Your task to perform on an android device: Search for Mexican restaurants on Maps Image 0: 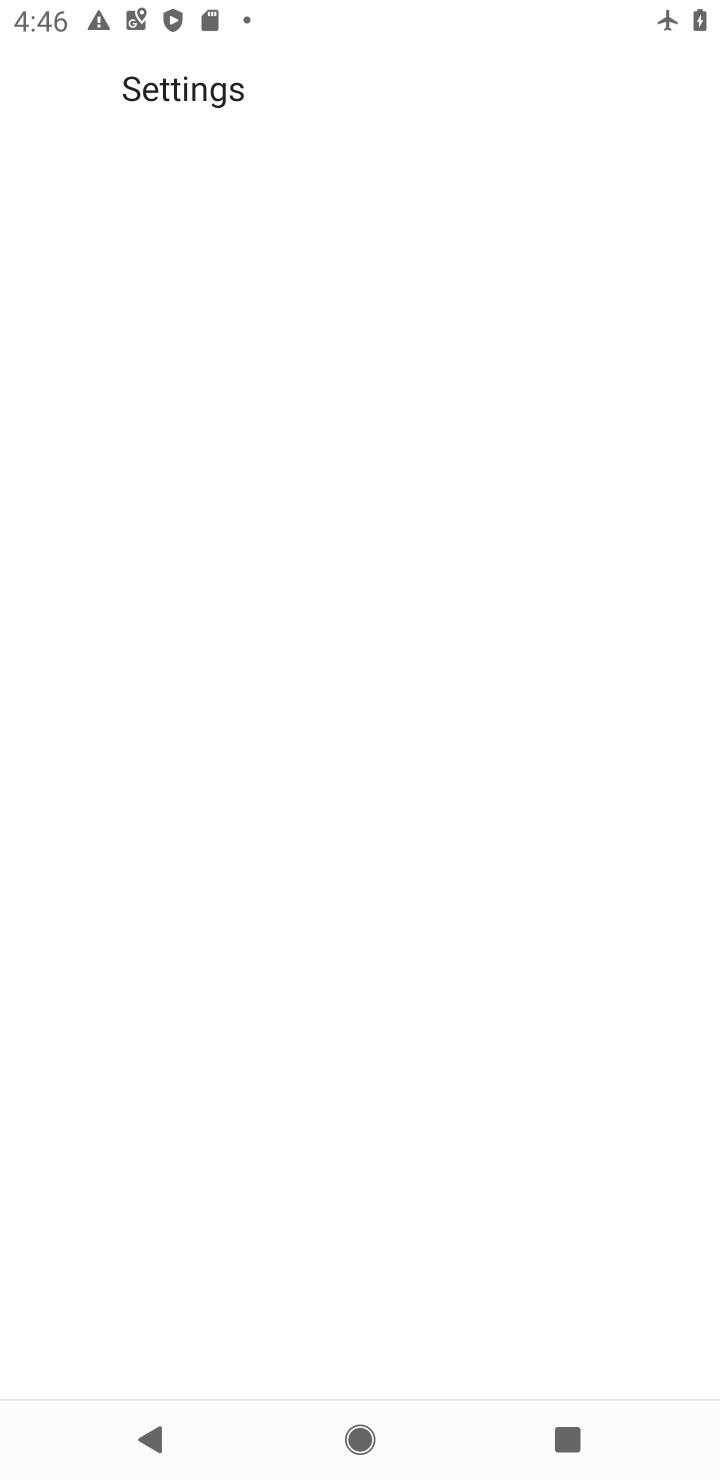
Step 0: press home button
Your task to perform on an android device: Search for Mexican restaurants on Maps Image 1: 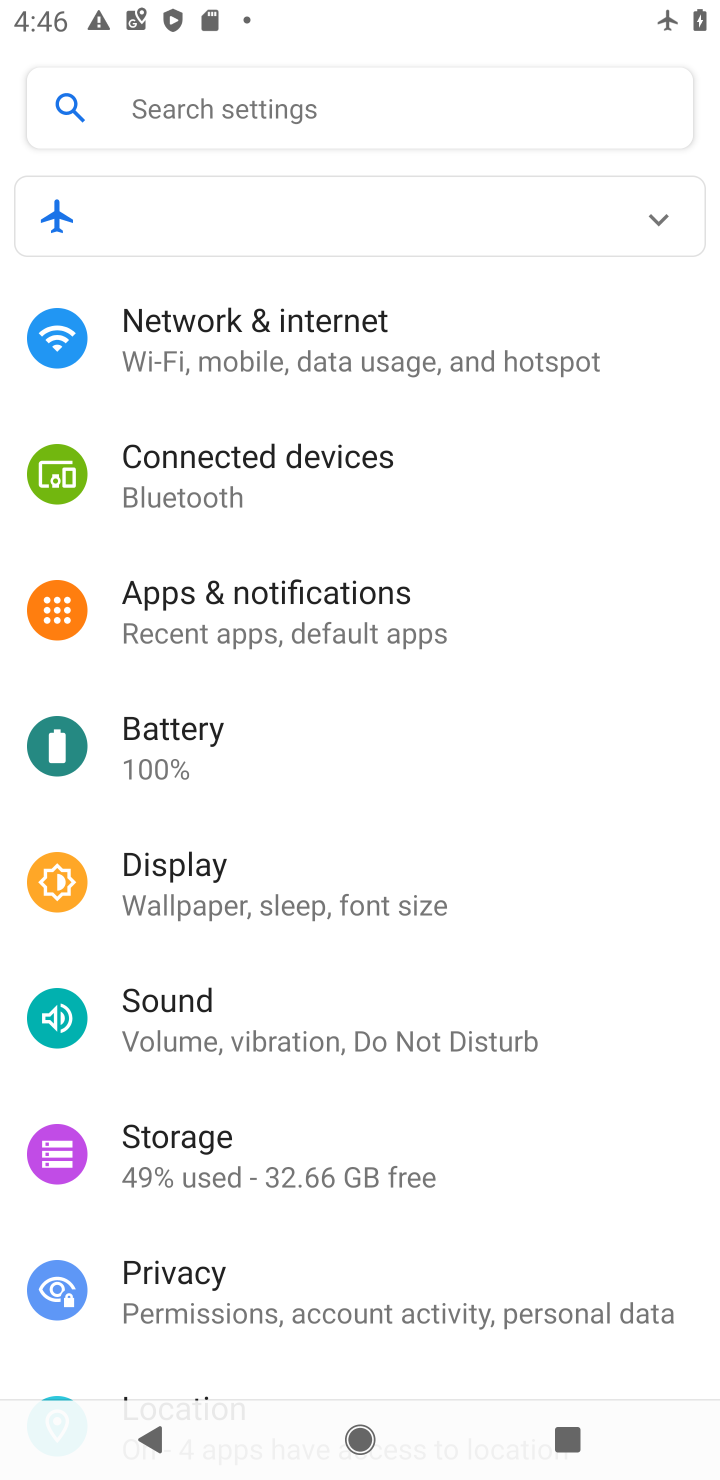
Step 1: press home button
Your task to perform on an android device: Search for Mexican restaurants on Maps Image 2: 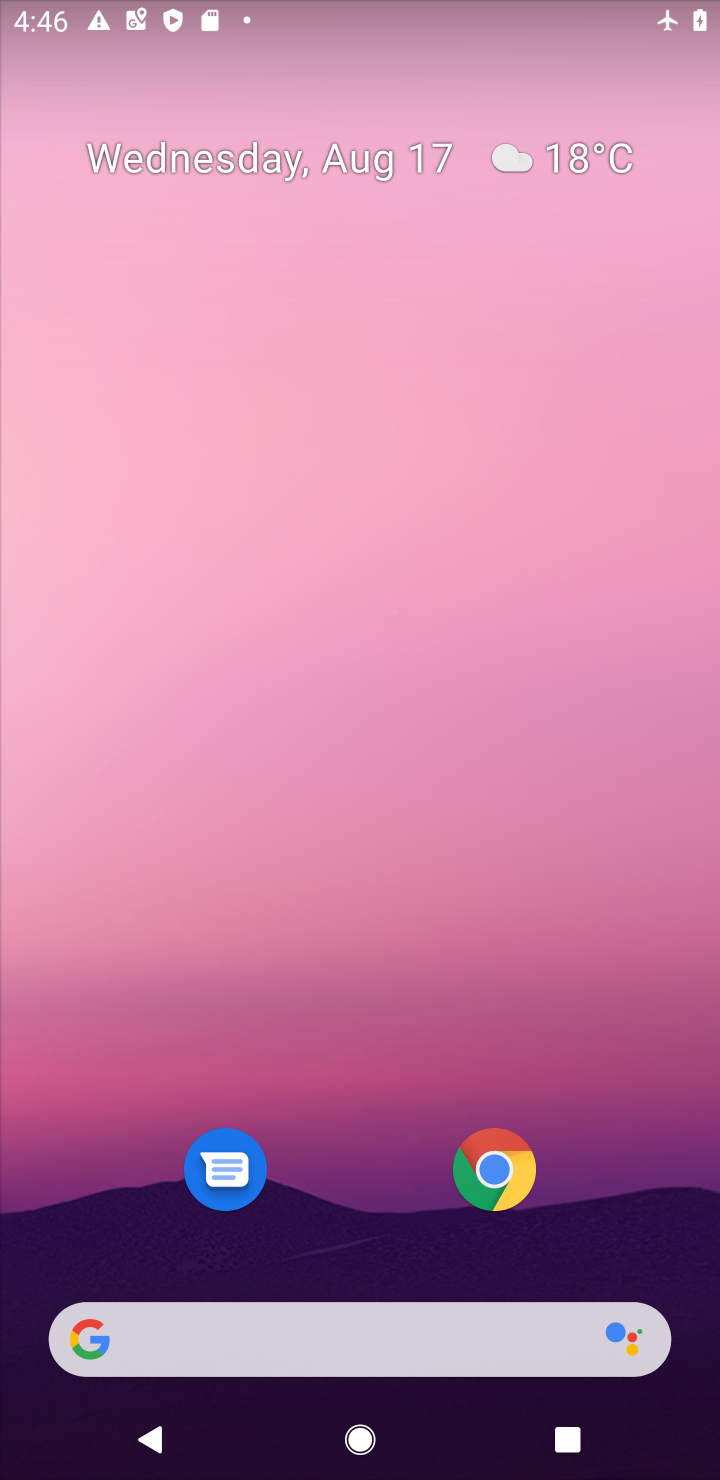
Step 2: press home button
Your task to perform on an android device: Search for Mexican restaurants on Maps Image 3: 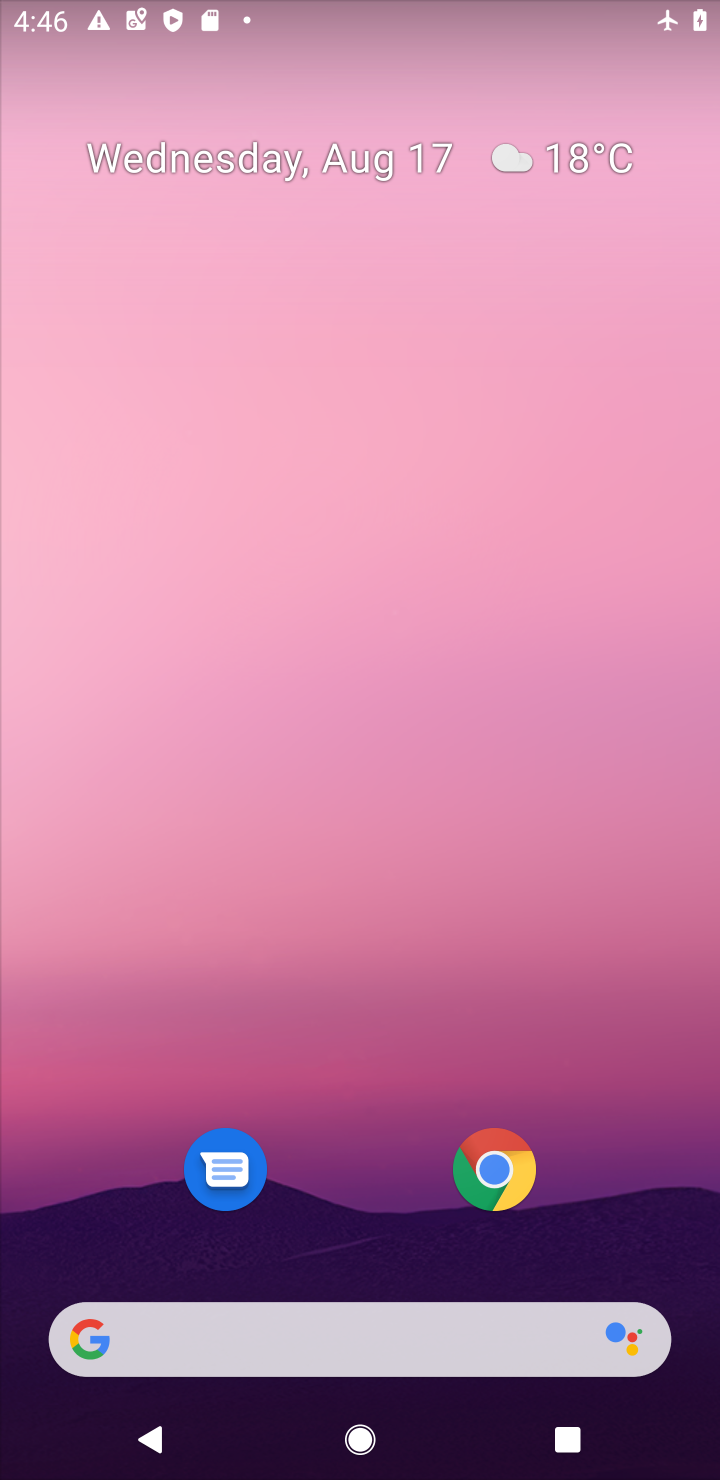
Step 3: drag from (289, 871) to (693, 289)
Your task to perform on an android device: Search for Mexican restaurants on Maps Image 4: 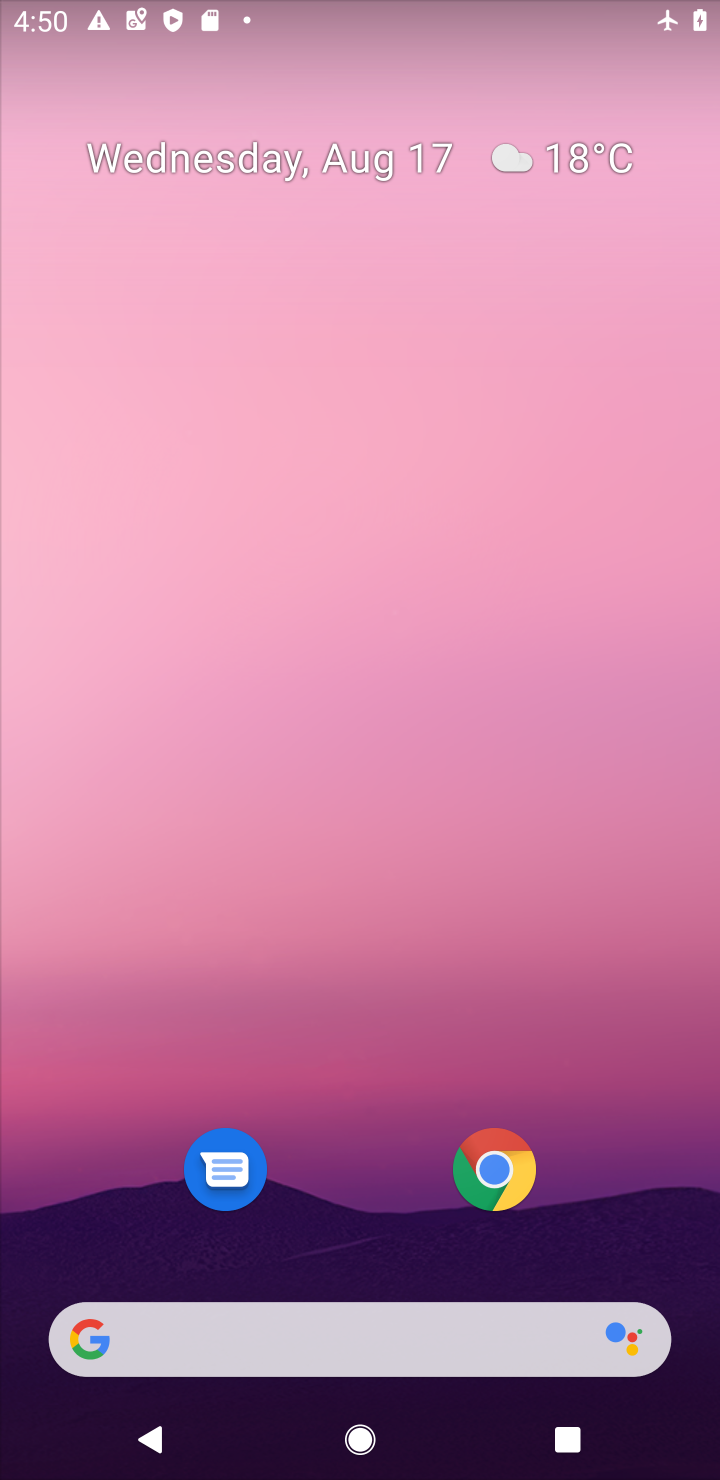
Step 4: drag from (359, 1279) to (289, 216)
Your task to perform on an android device: Search for Mexican restaurants on Maps Image 5: 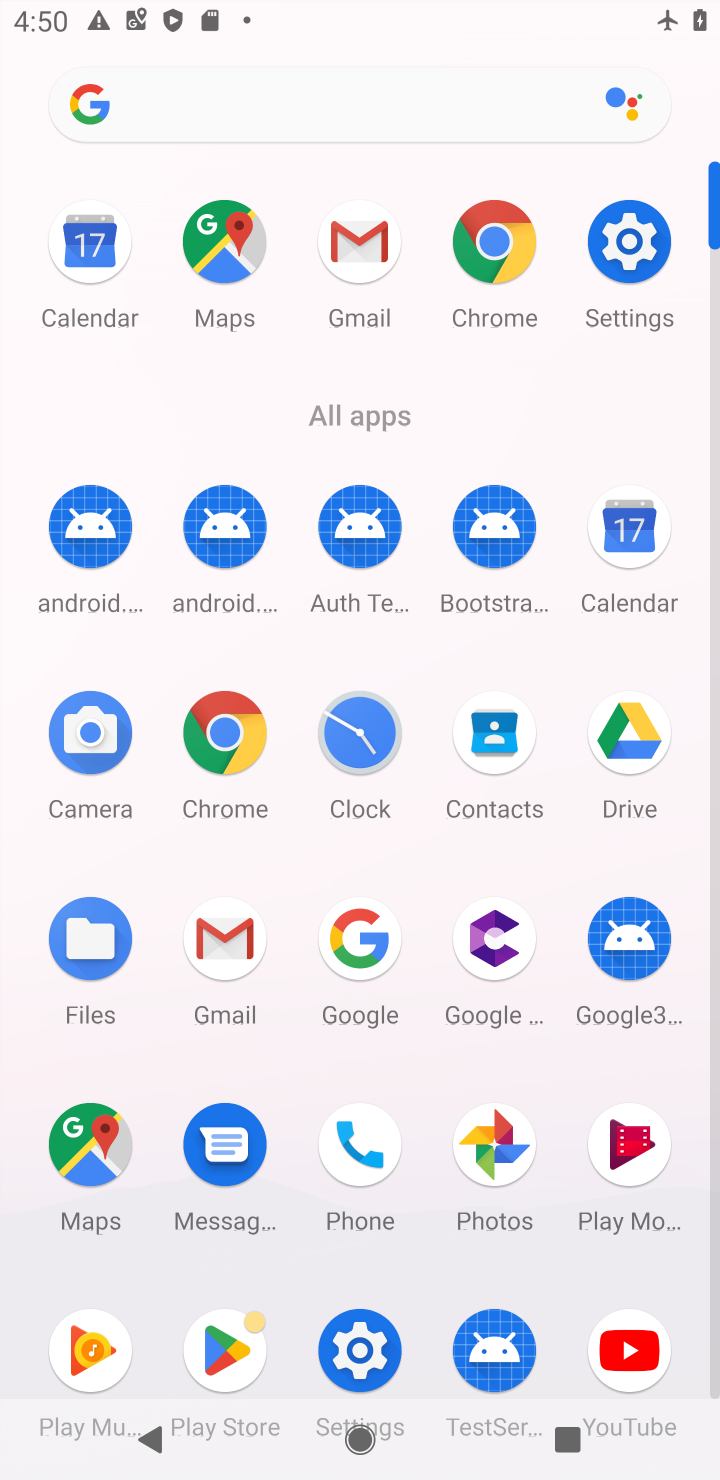
Step 5: click (221, 248)
Your task to perform on an android device: Search for Mexican restaurants on Maps Image 6: 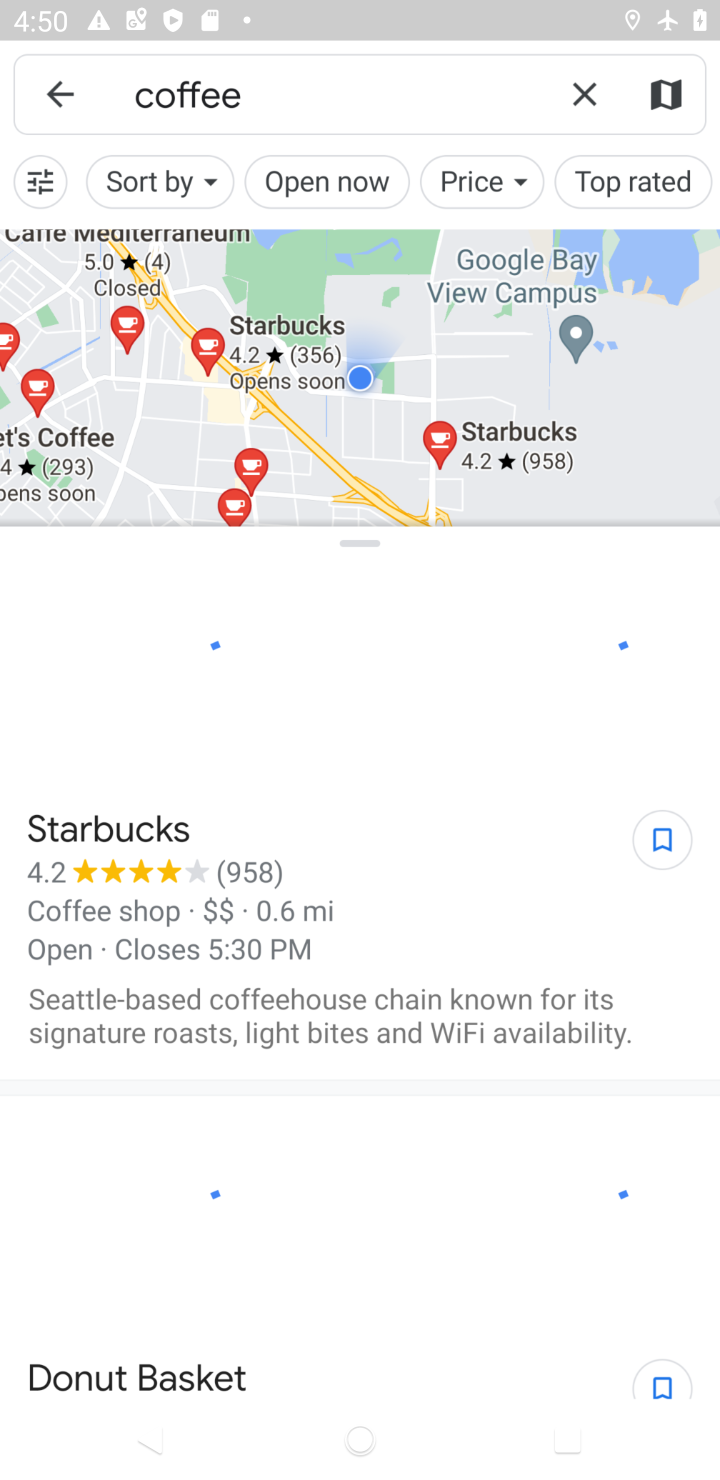
Step 6: click (591, 110)
Your task to perform on an android device: Search for Mexican restaurants on Maps Image 7: 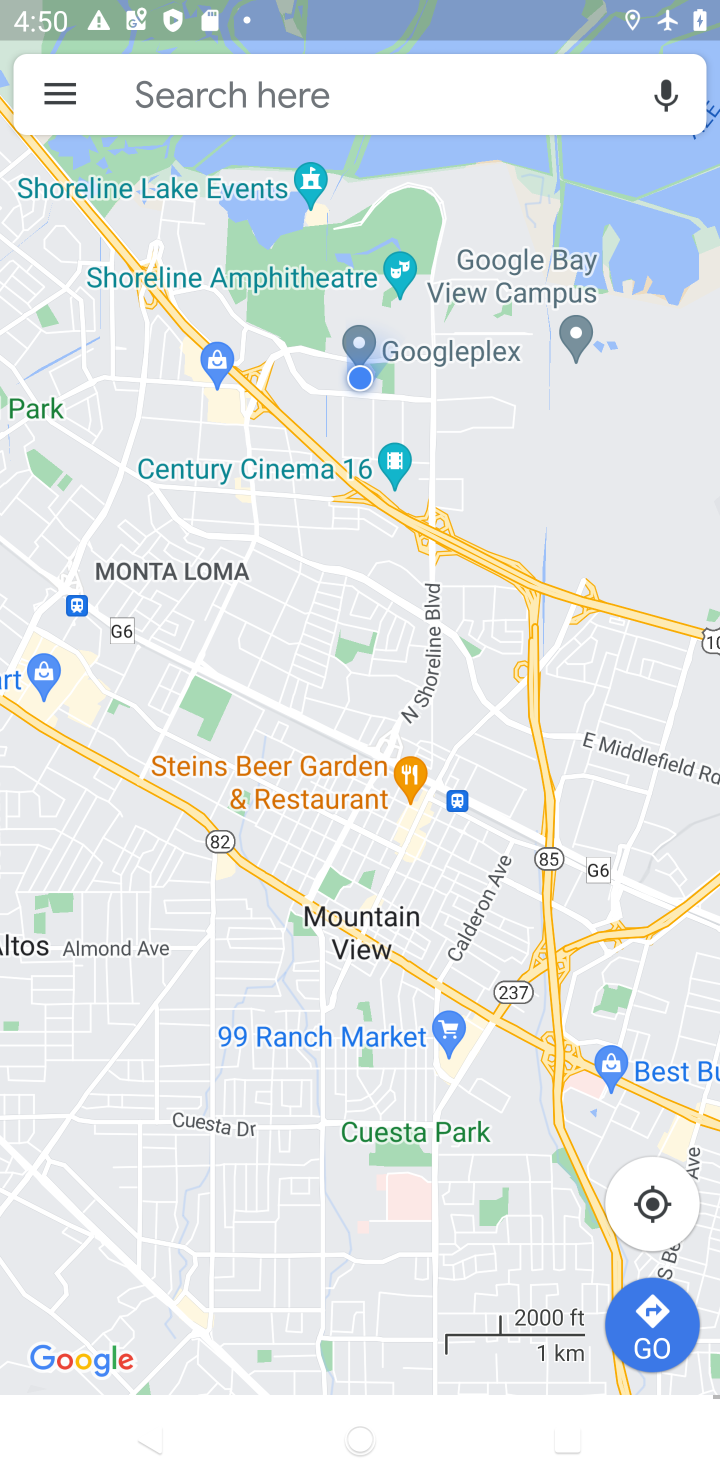
Step 7: click (586, 94)
Your task to perform on an android device: Search for Mexican restaurants on Maps Image 8: 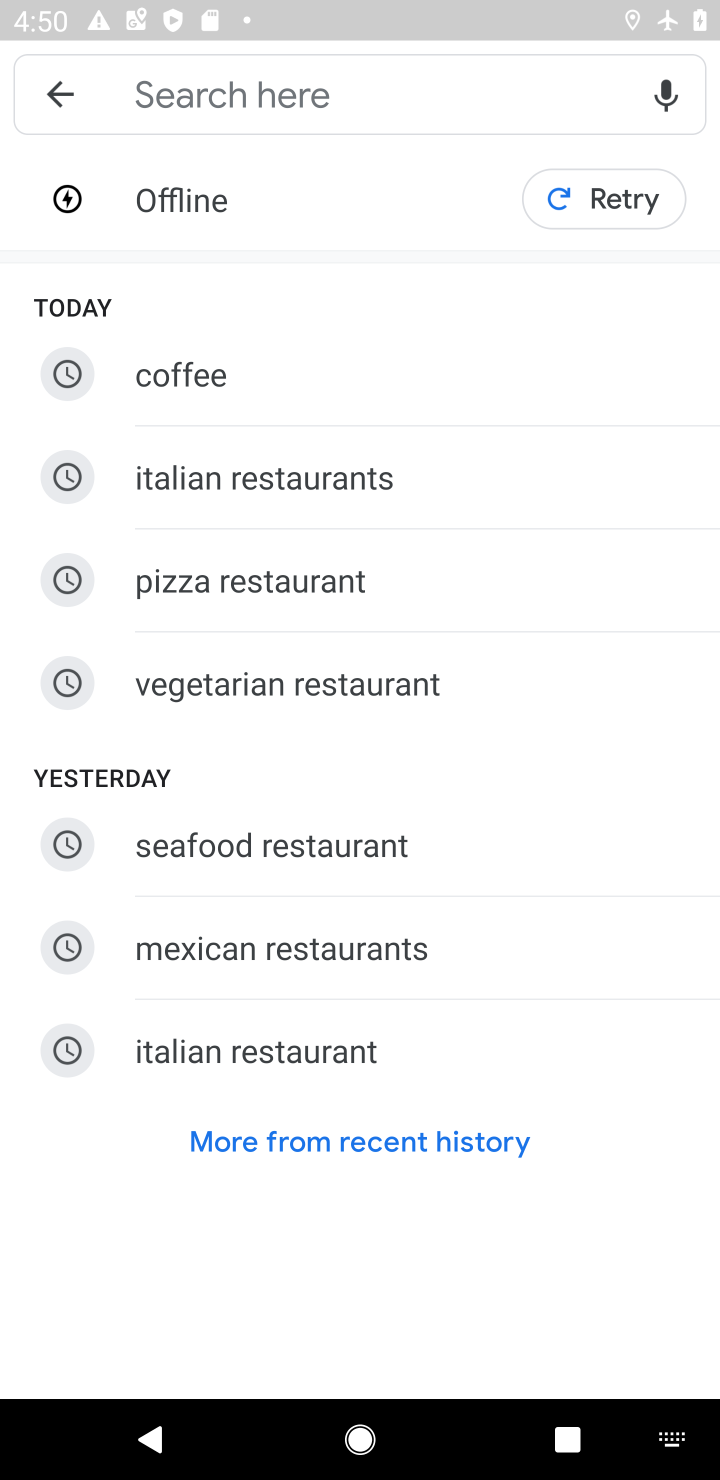
Step 8: click (344, 959)
Your task to perform on an android device: Search for Mexican restaurants on Maps Image 9: 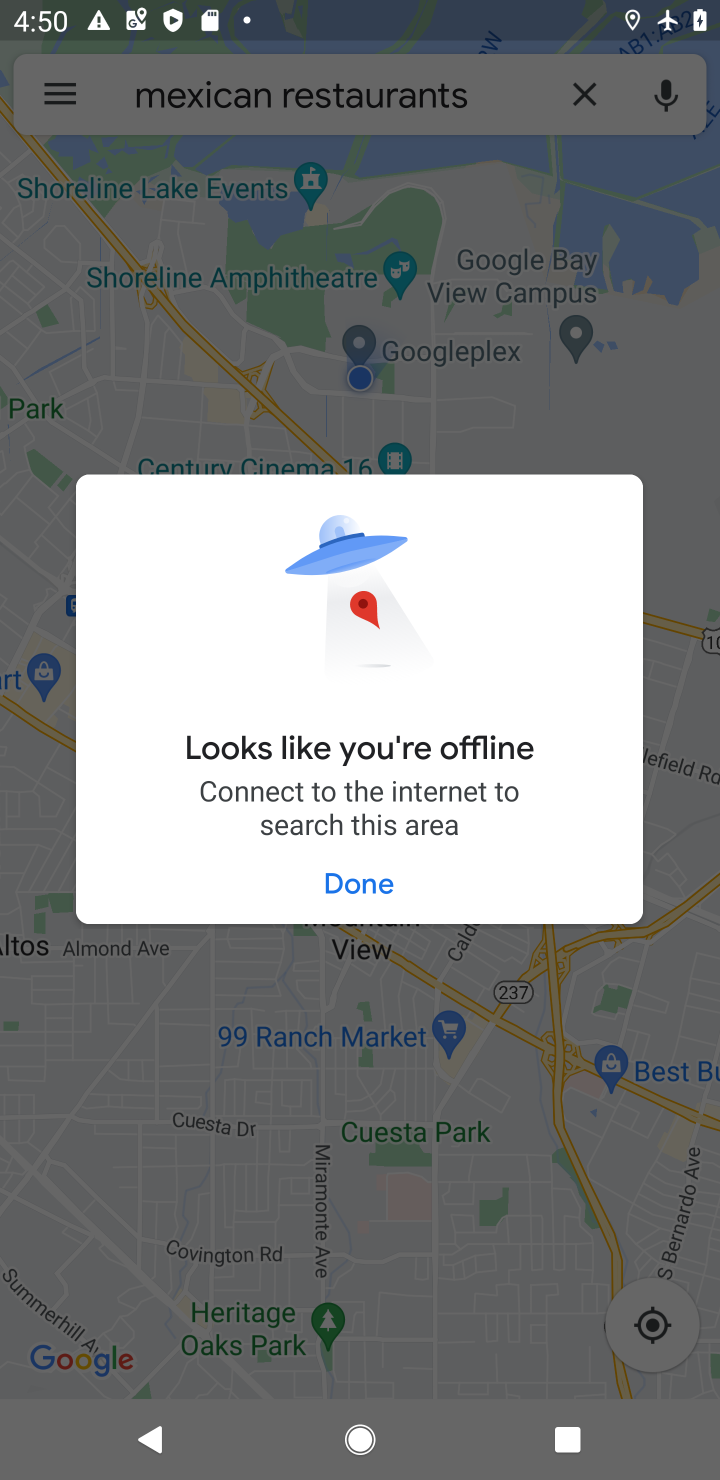
Step 9: task complete